Your task to perform on an android device: open app "Move to iOS" (install if not already installed) Image 0: 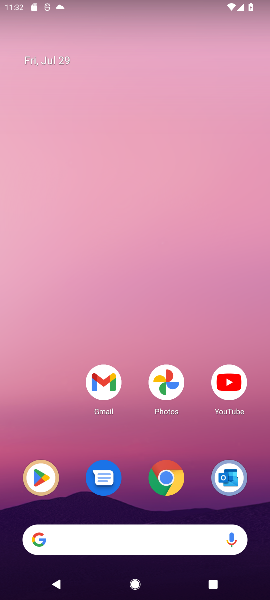
Step 0: click (45, 473)
Your task to perform on an android device: open app "Move to iOS" (install if not already installed) Image 1: 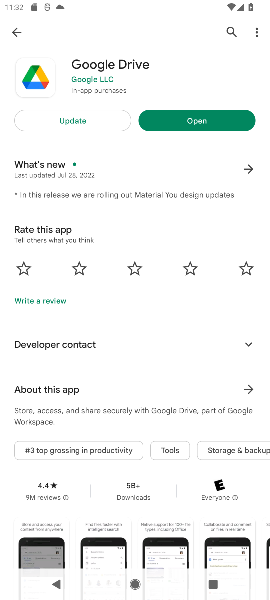
Step 1: press home button
Your task to perform on an android device: open app "Move to iOS" (install if not already installed) Image 2: 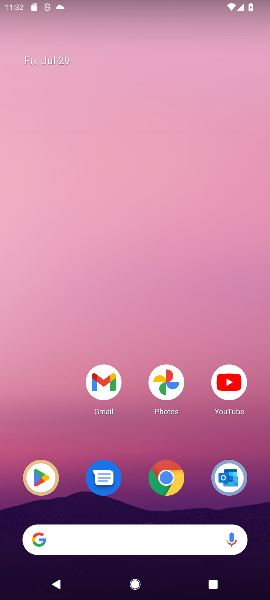
Step 2: click (39, 470)
Your task to perform on an android device: open app "Move to iOS" (install if not already installed) Image 3: 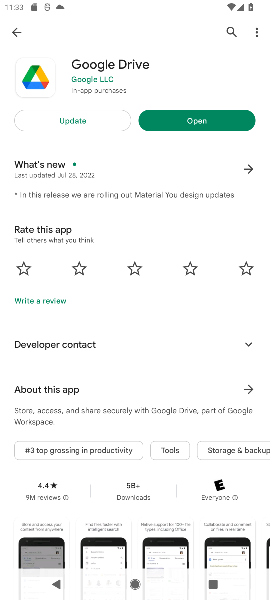
Step 3: click (16, 31)
Your task to perform on an android device: open app "Move to iOS" (install if not already installed) Image 4: 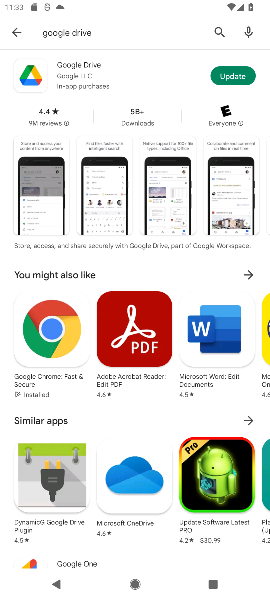
Step 4: click (13, 31)
Your task to perform on an android device: open app "Move to iOS" (install if not already installed) Image 5: 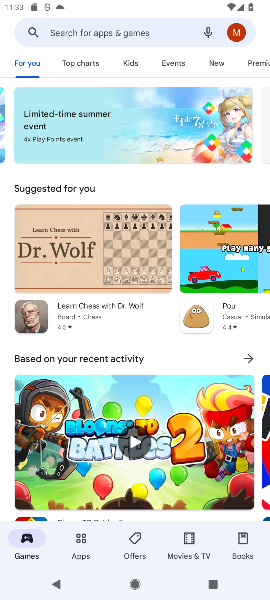
Step 5: click (71, 26)
Your task to perform on an android device: open app "Move to iOS" (install if not already installed) Image 6: 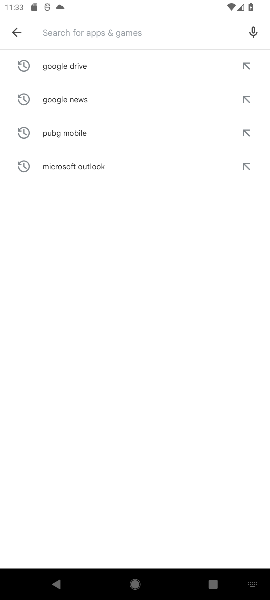
Step 6: type ""Move to iOS"
Your task to perform on an android device: open app "Move to iOS" (install if not already installed) Image 7: 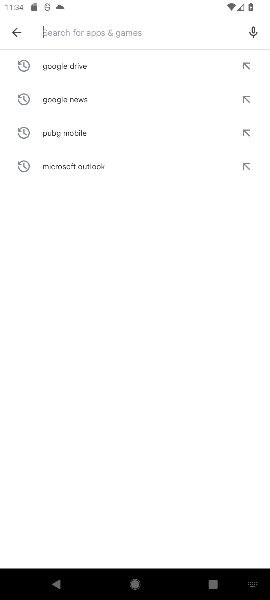
Step 7: click (58, 68)
Your task to perform on an android device: open app "Move to iOS" (install if not already installed) Image 8: 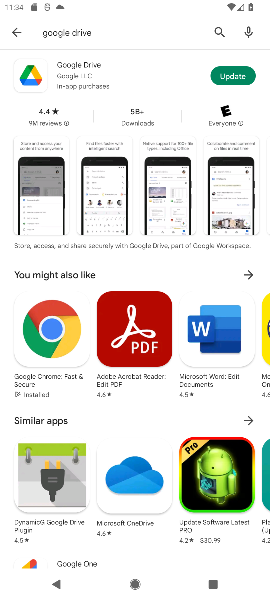
Step 8: click (13, 30)
Your task to perform on an android device: open app "Move to iOS" (install if not already installed) Image 9: 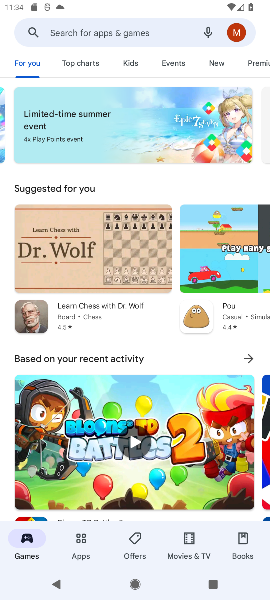
Step 9: click (64, 27)
Your task to perform on an android device: open app "Move to iOS" (install if not already installed) Image 10: 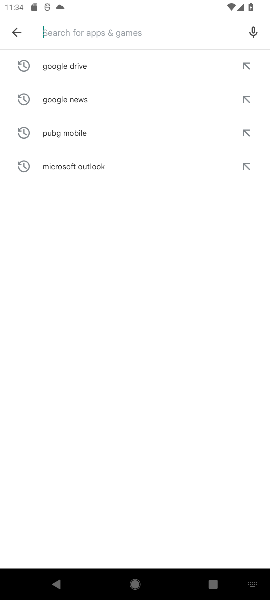
Step 10: type "Move to iOS"
Your task to perform on an android device: open app "Move to iOS" (install if not already installed) Image 11: 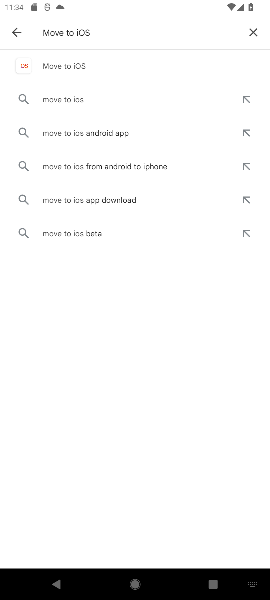
Step 11: click (49, 62)
Your task to perform on an android device: open app "Move to iOS" (install if not already installed) Image 12: 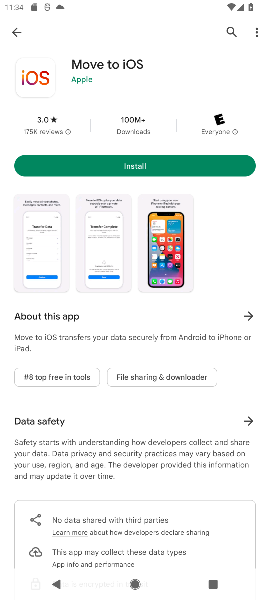
Step 12: click (202, 160)
Your task to perform on an android device: open app "Move to iOS" (install if not already installed) Image 13: 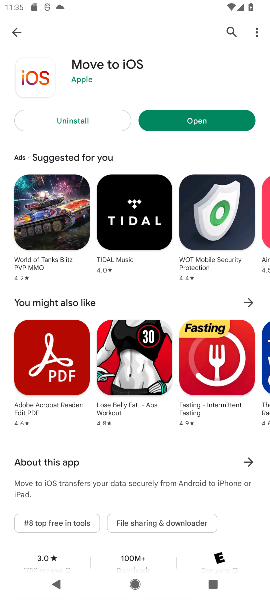
Step 13: click (215, 116)
Your task to perform on an android device: open app "Move to iOS" (install if not already installed) Image 14: 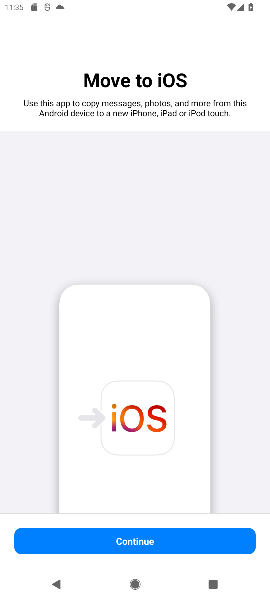
Step 14: click (236, 544)
Your task to perform on an android device: open app "Move to iOS" (install if not already installed) Image 15: 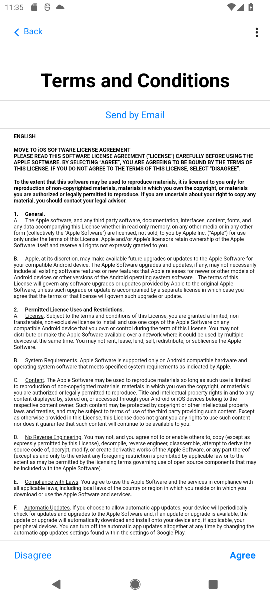
Step 15: click (240, 553)
Your task to perform on an android device: open app "Move to iOS" (install if not already installed) Image 16: 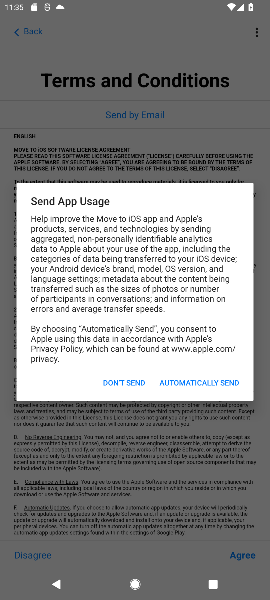
Step 16: task complete